Your task to perform on an android device: uninstall "Chime – Mobile Banking" Image 0: 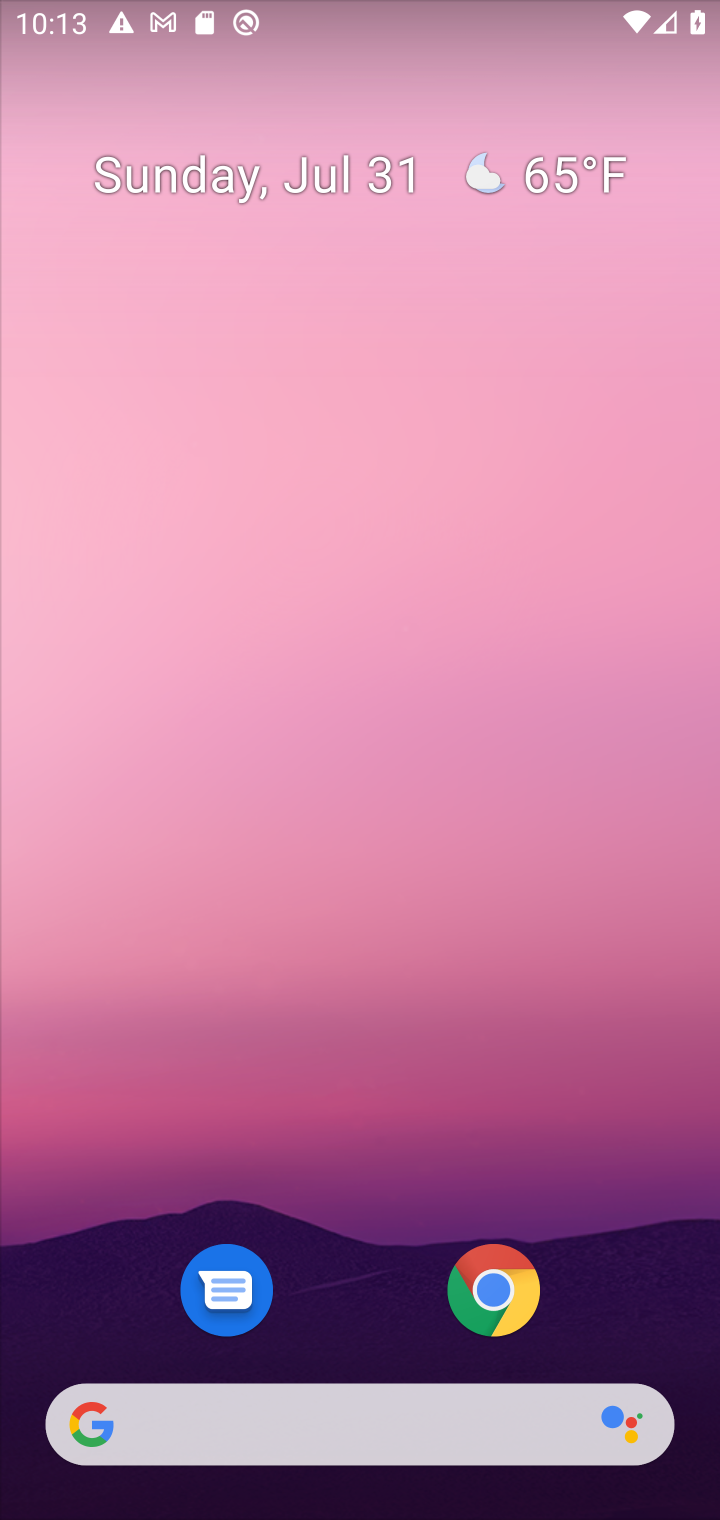
Step 0: press home button
Your task to perform on an android device: uninstall "Chime – Mobile Banking" Image 1: 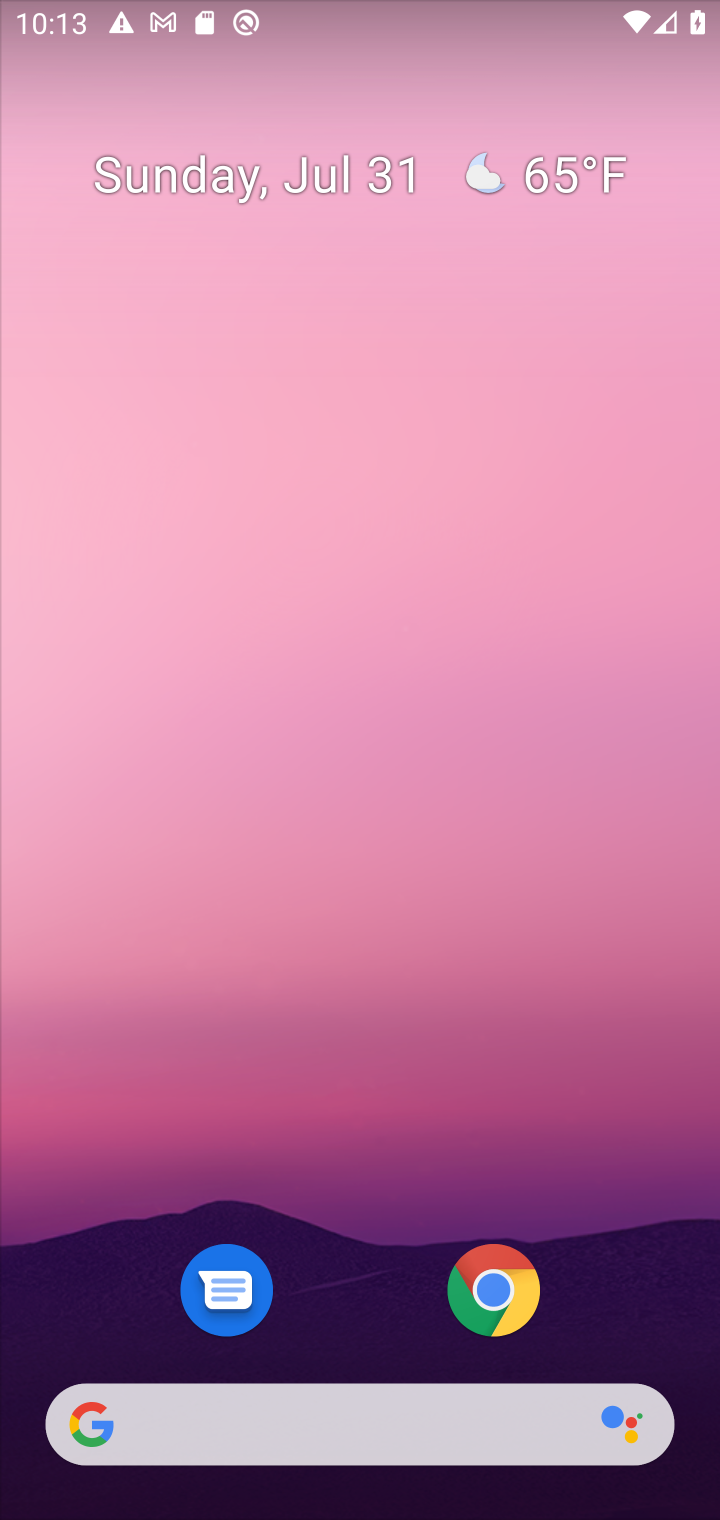
Step 1: drag from (609, 1259) to (570, 149)
Your task to perform on an android device: uninstall "Chime – Mobile Banking" Image 2: 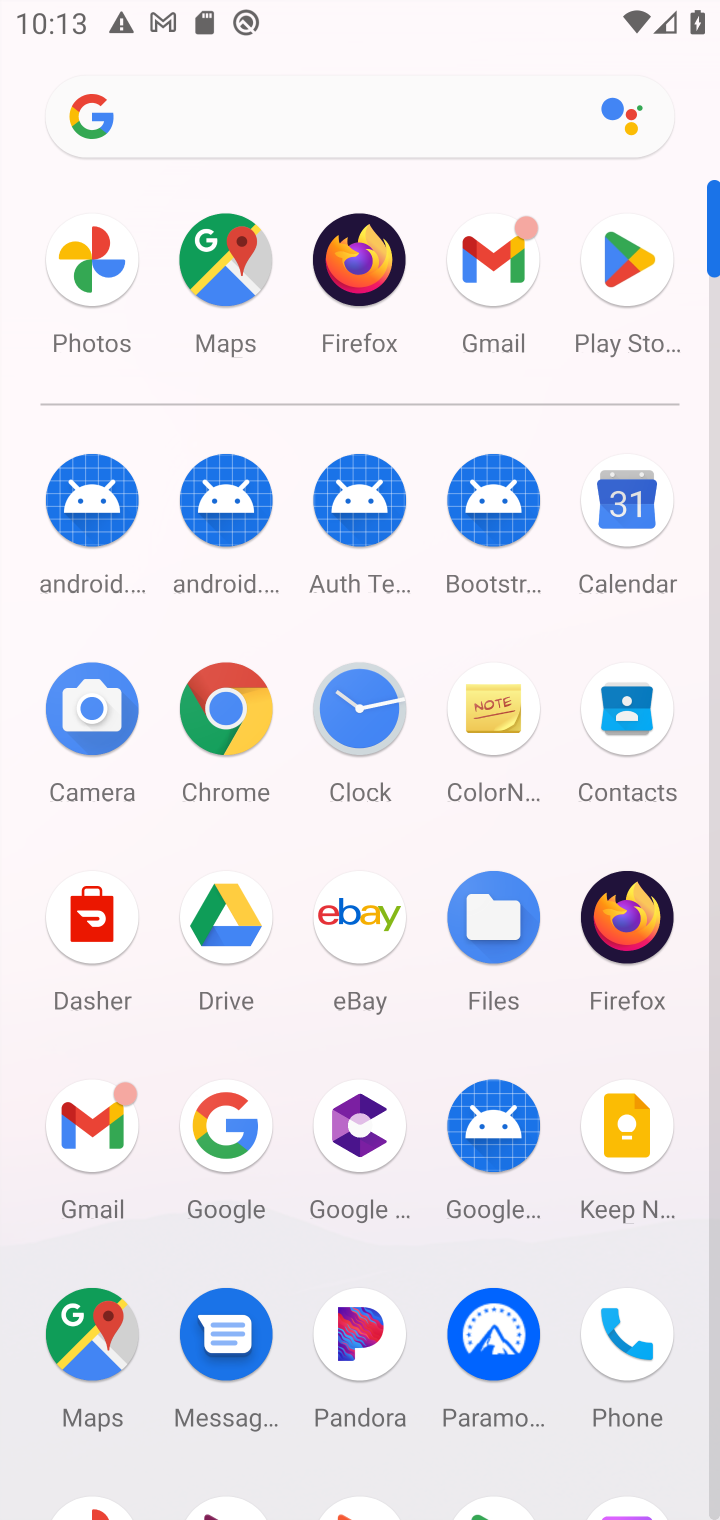
Step 2: click (616, 271)
Your task to perform on an android device: uninstall "Chime – Mobile Banking" Image 3: 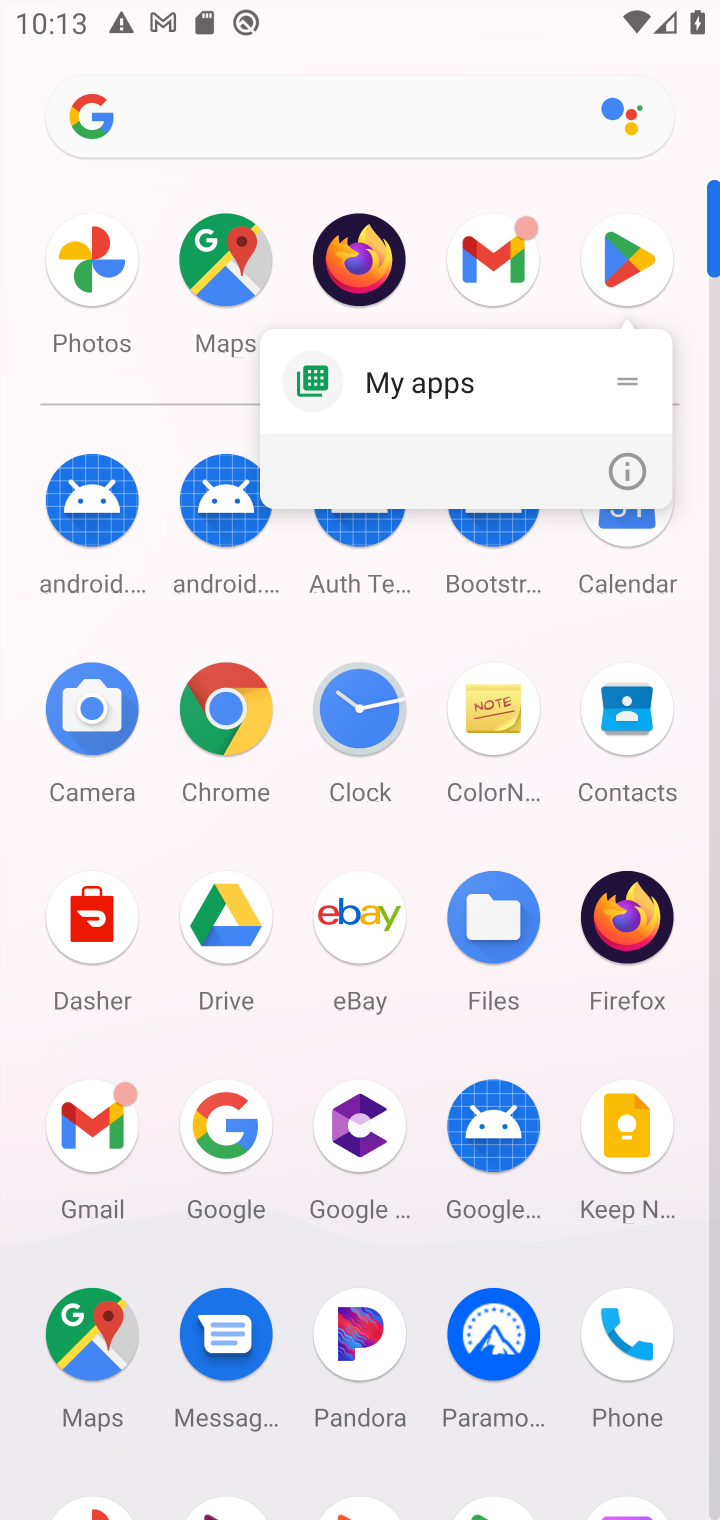
Step 3: click (643, 253)
Your task to perform on an android device: uninstall "Chime – Mobile Banking" Image 4: 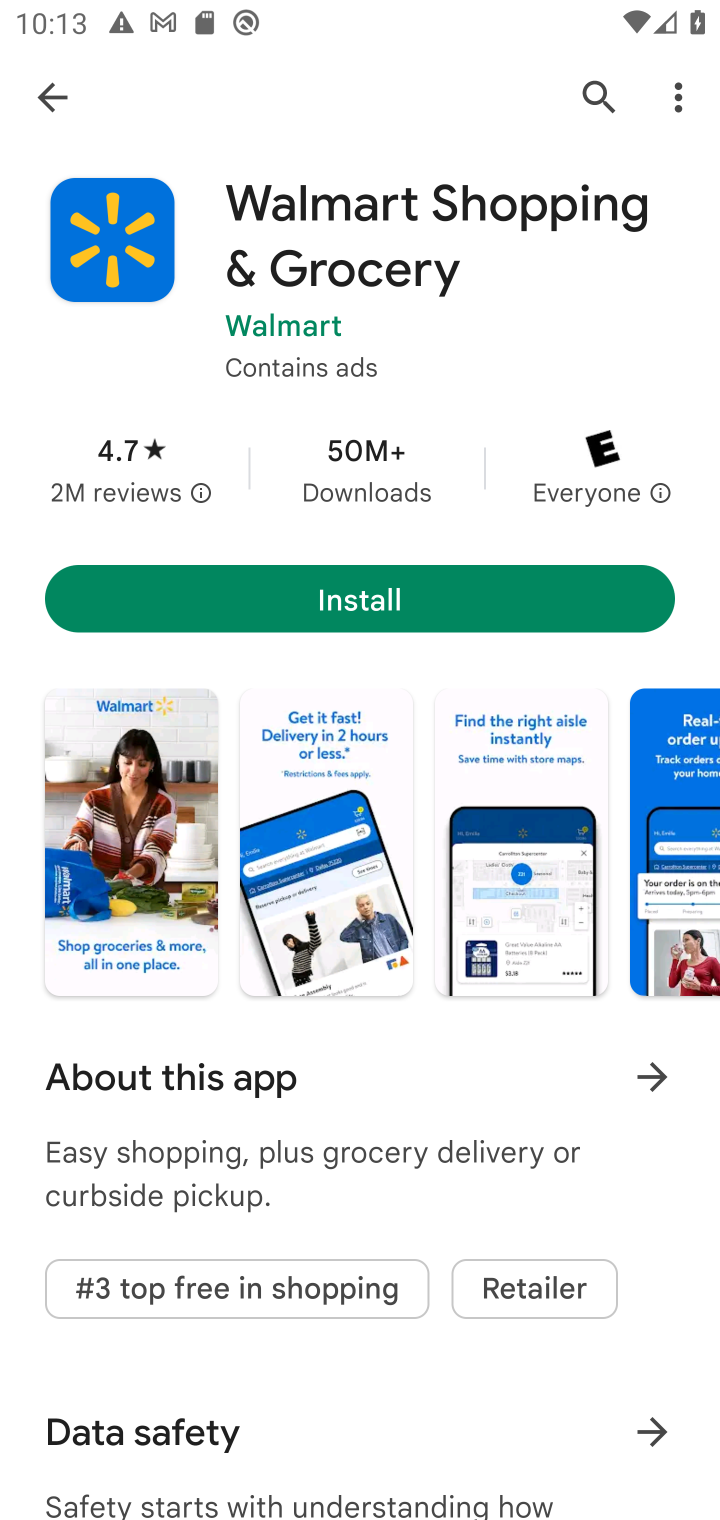
Step 4: click (599, 89)
Your task to perform on an android device: uninstall "Chime – Mobile Banking" Image 5: 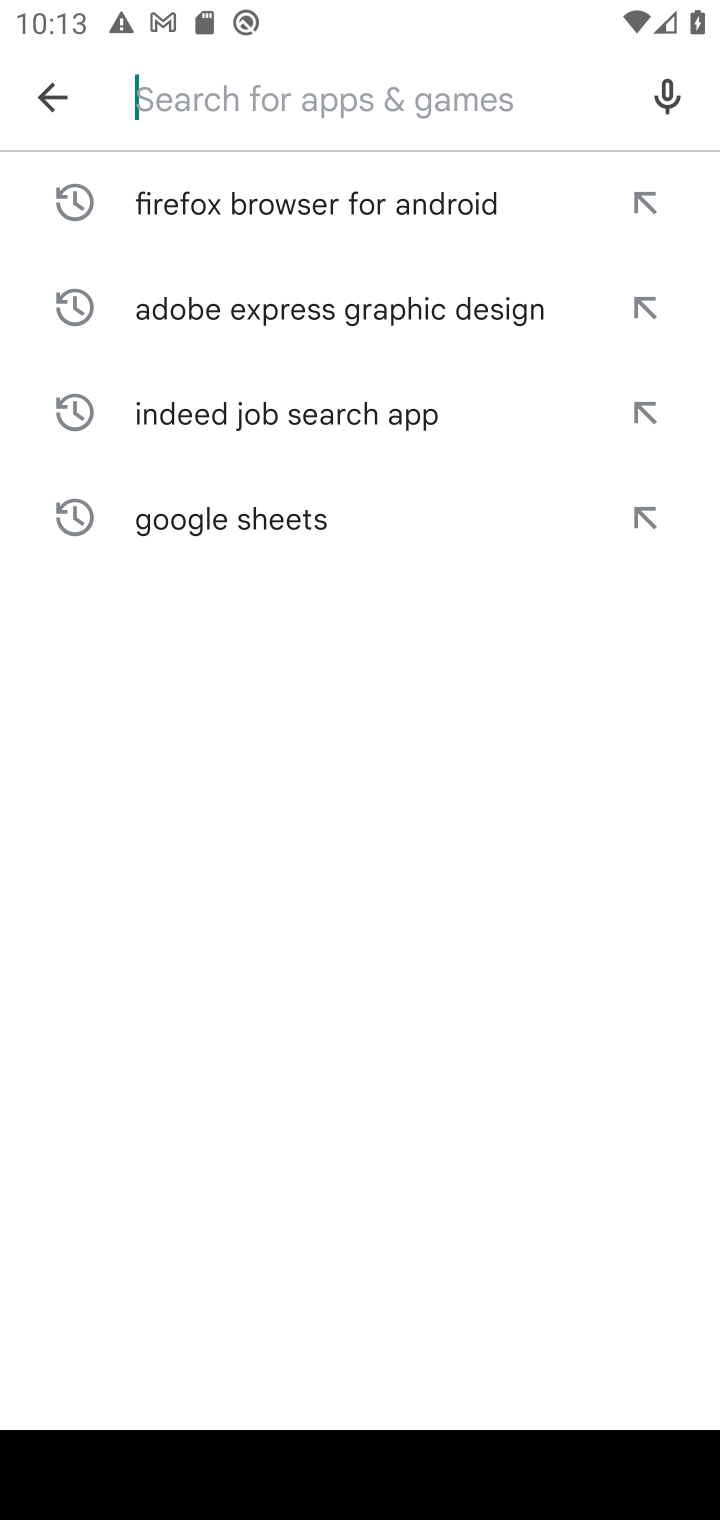
Step 5: type ""
Your task to perform on an android device: uninstall "Chime – Mobile Banking" Image 6: 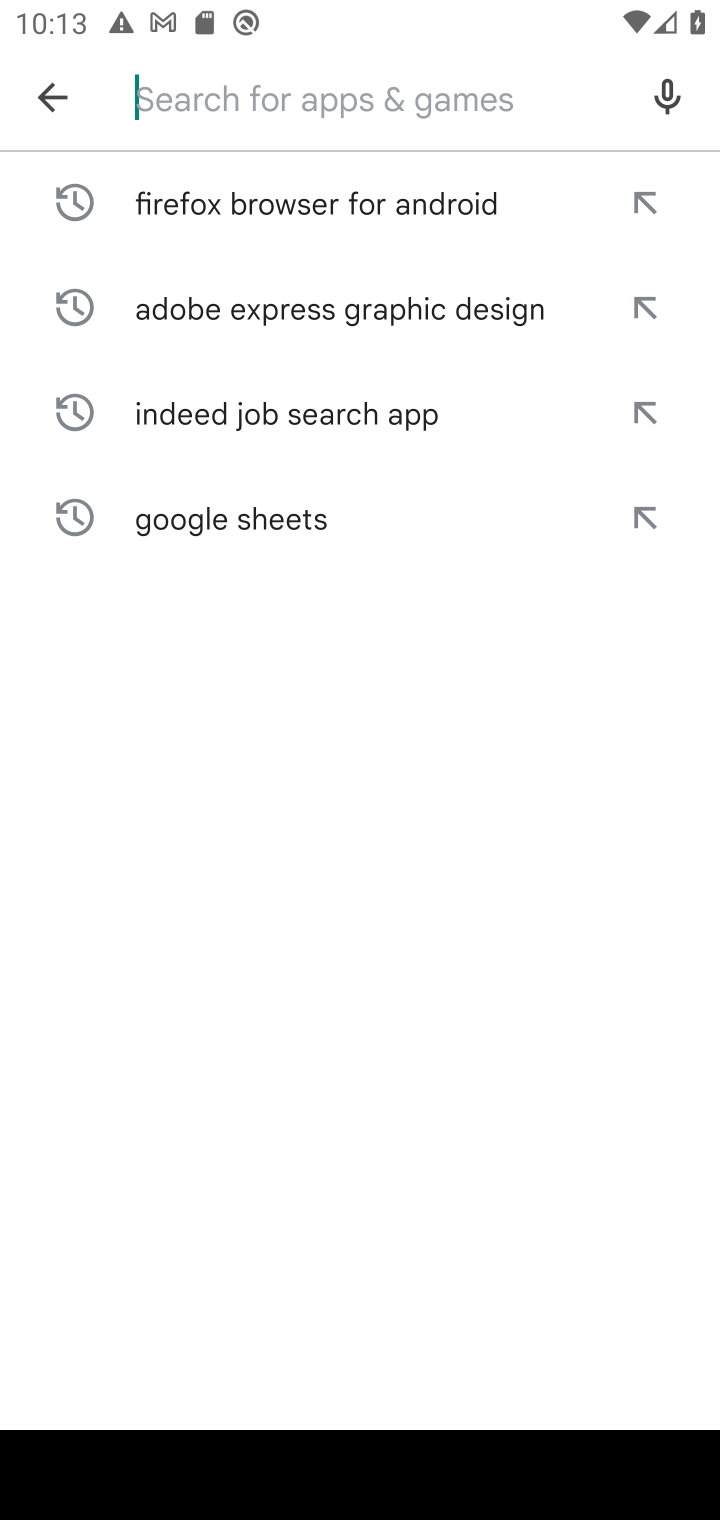
Step 6: type "Chime – Mobile Banking"
Your task to perform on an android device: uninstall "Chime – Mobile Banking" Image 7: 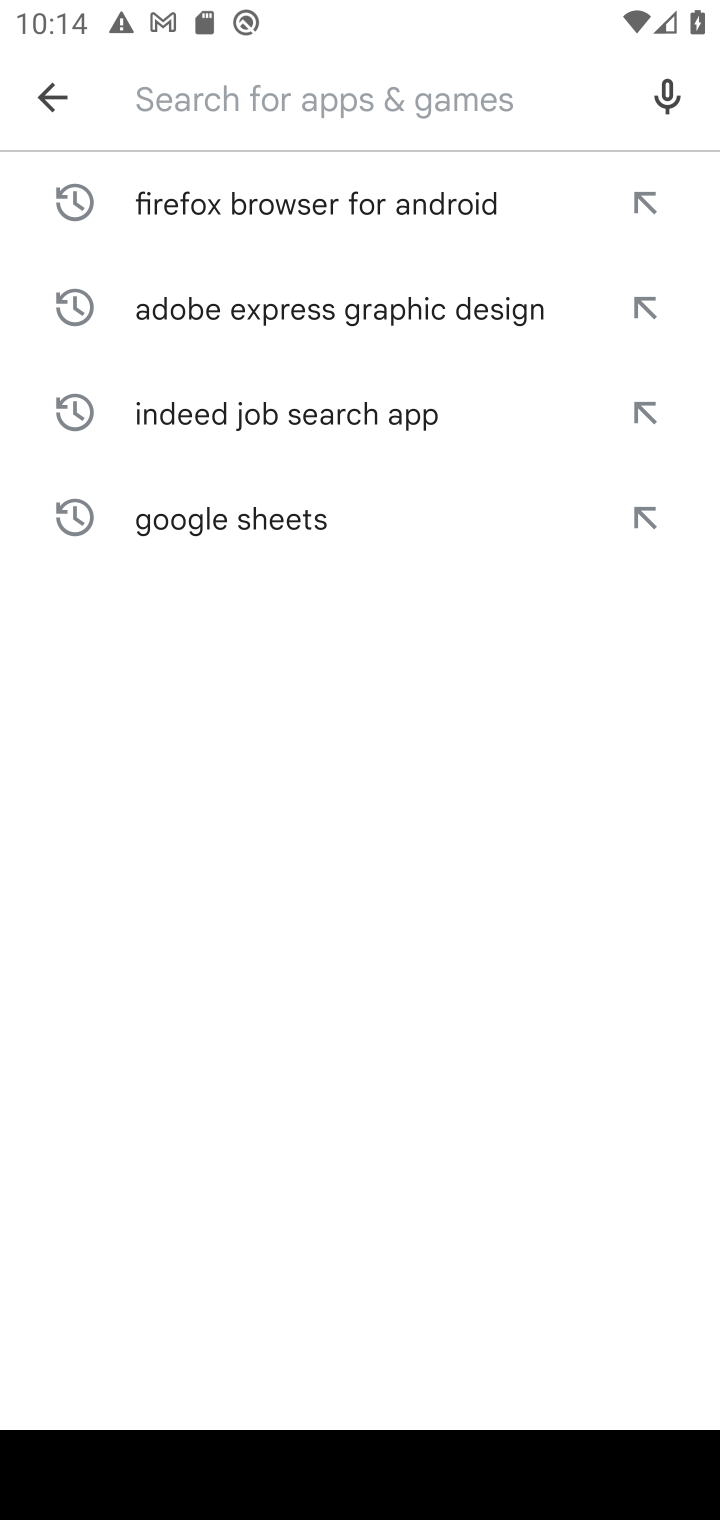
Step 7: type "Chime – Mobile Banking""
Your task to perform on an android device: uninstall "Chime – Mobile Banking" Image 8: 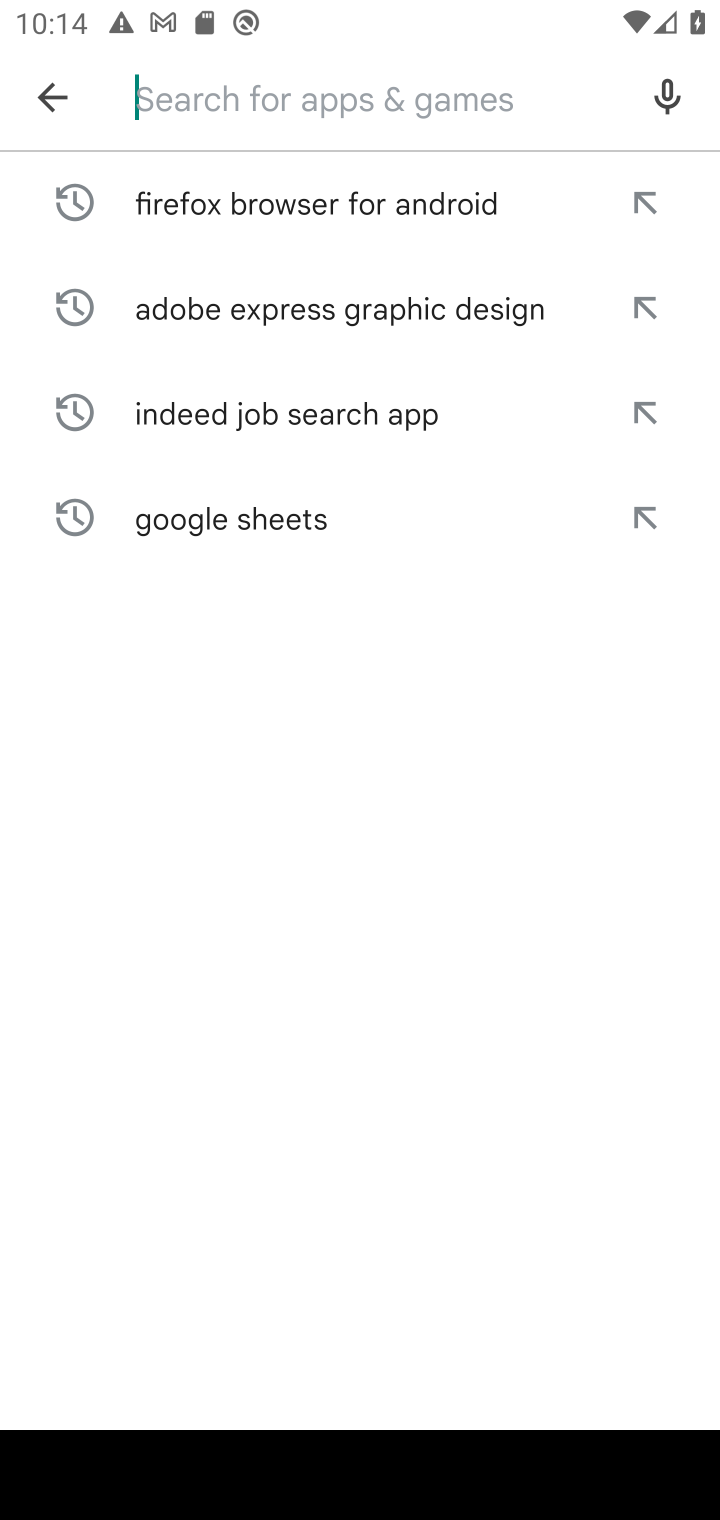
Step 8: click (469, 83)
Your task to perform on an android device: uninstall "Chime – Mobile Banking" Image 9: 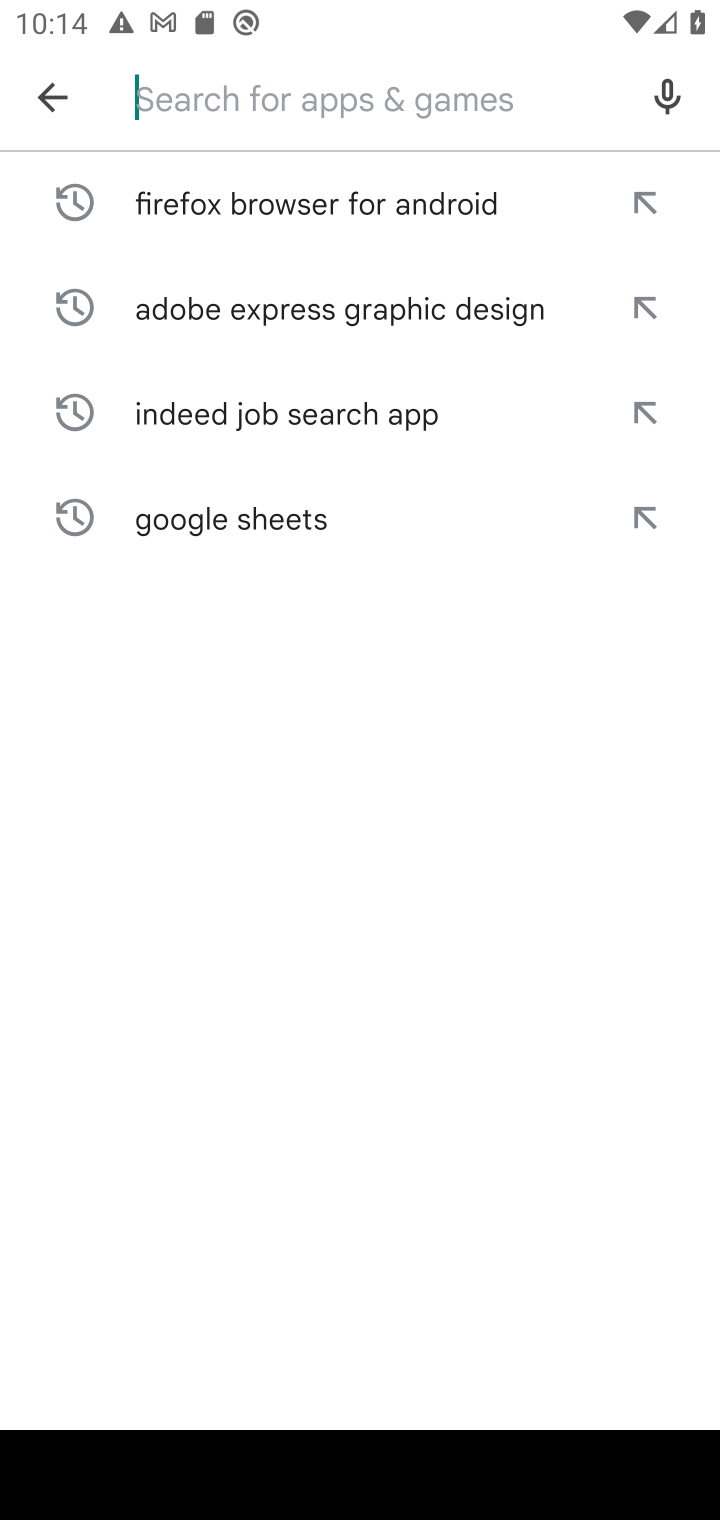
Step 9: task complete